Your task to perform on an android device: see tabs open on other devices in the chrome app Image 0: 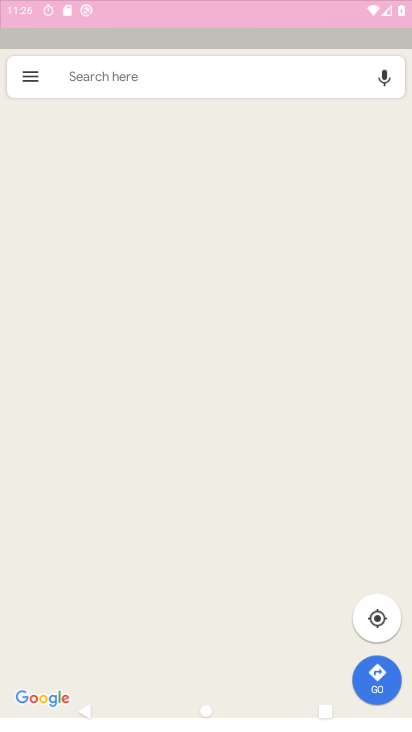
Step 0: press home button
Your task to perform on an android device: see tabs open on other devices in the chrome app Image 1: 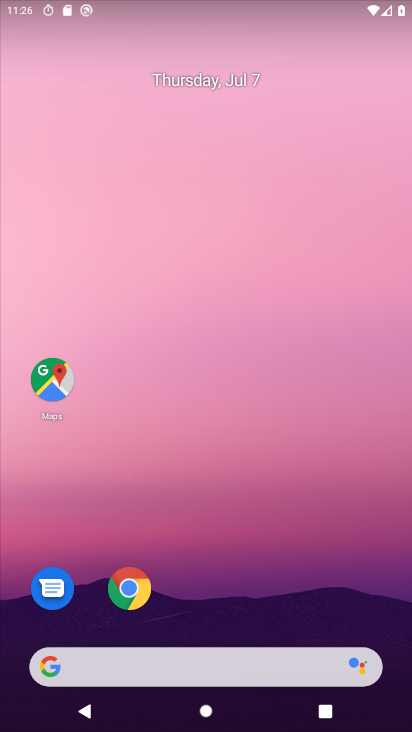
Step 1: click (132, 596)
Your task to perform on an android device: see tabs open on other devices in the chrome app Image 2: 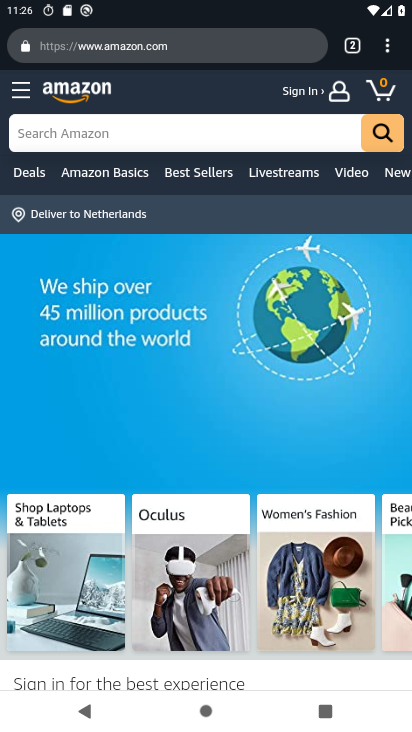
Step 2: task complete